Your task to perform on an android device: empty trash in google photos Image 0: 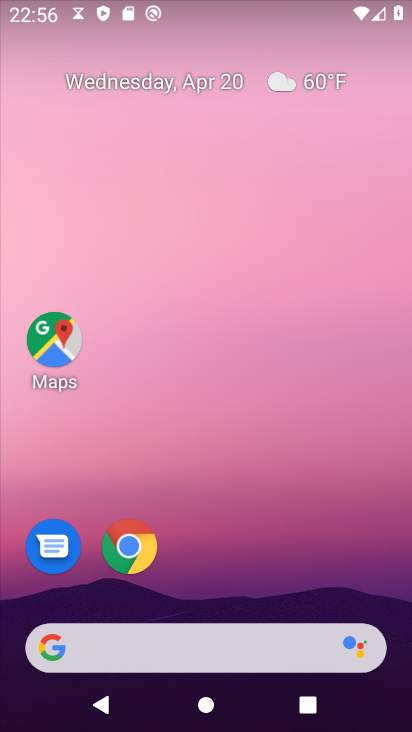
Step 0: drag from (267, 469) to (244, 23)
Your task to perform on an android device: empty trash in google photos Image 1: 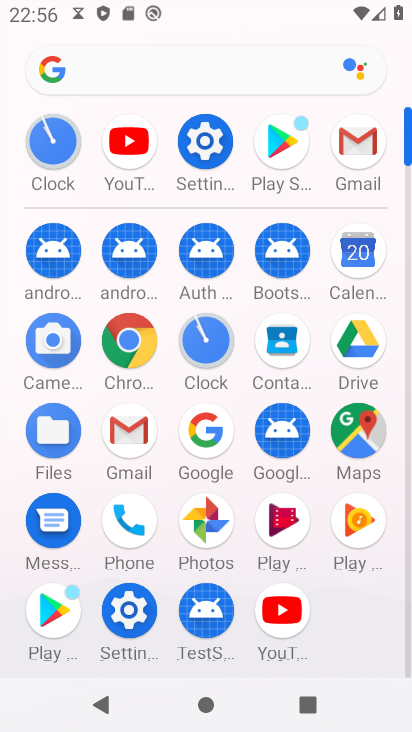
Step 1: click (196, 525)
Your task to perform on an android device: empty trash in google photos Image 2: 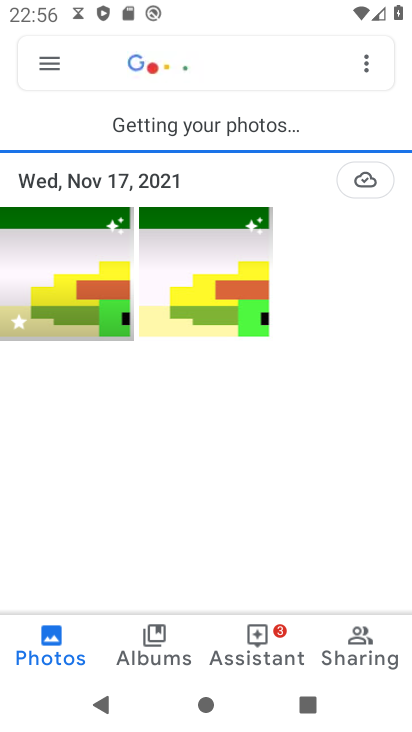
Step 2: click (51, 63)
Your task to perform on an android device: empty trash in google photos Image 3: 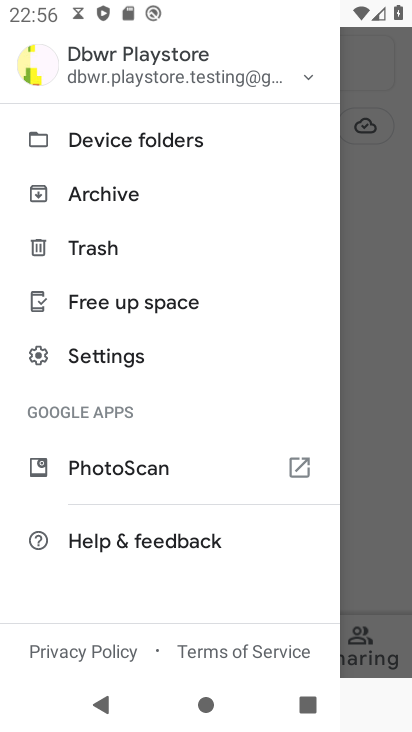
Step 3: click (105, 248)
Your task to perform on an android device: empty trash in google photos Image 4: 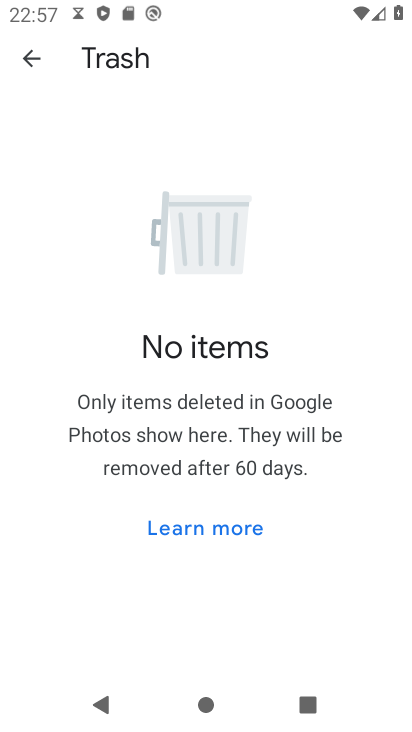
Step 4: task complete